Your task to perform on an android device: turn smart compose on in the gmail app Image 0: 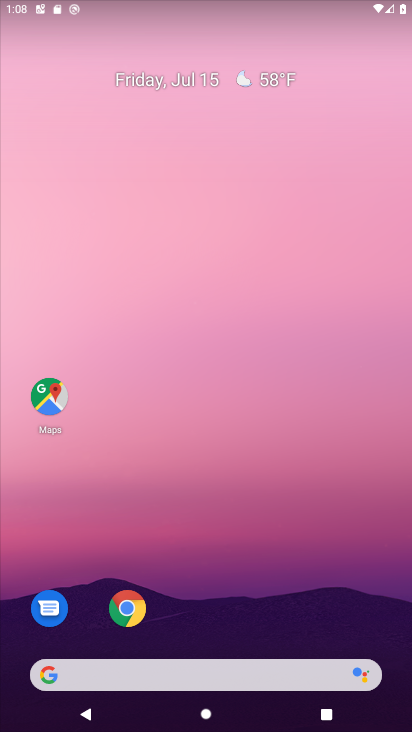
Step 0: drag from (255, 540) to (318, 184)
Your task to perform on an android device: turn smart compose on in the gmail app Image 1: 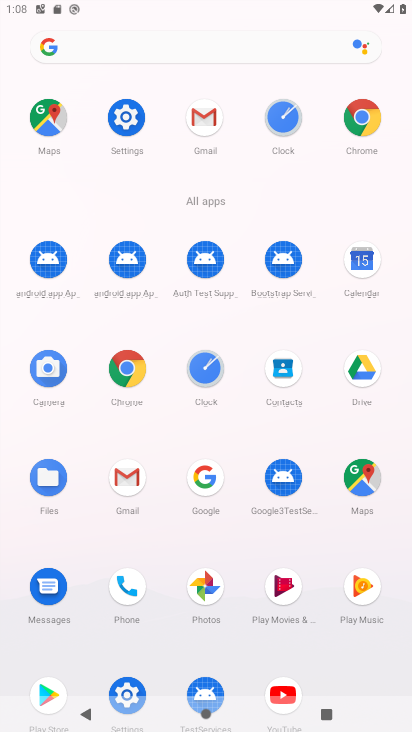
Step 1: click (110, 471)
Your task to perform on an android device: turn smart compose on in the gmail app Image 2: 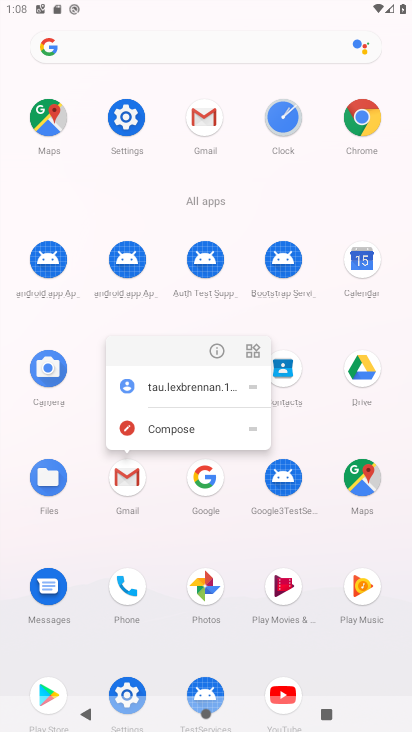
Step 2: click (128, 475)
Your task to perform on an android device: turn smart compose on in the gmail app Image 3: 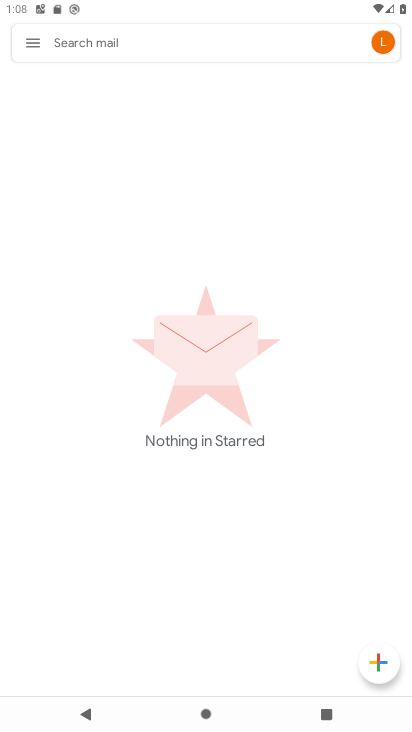
Step 3: click (32, 43)
Your task to perform on an android device: turn smart compose on in the gmail app Image 4: 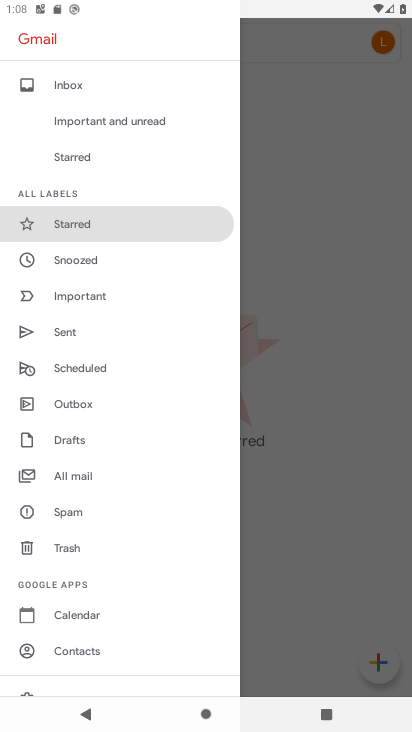
Step 4: drag from (112, 603) to (189, 357)
Your task to perform on an android device: turn smart compose on in the gmail app Image 5: 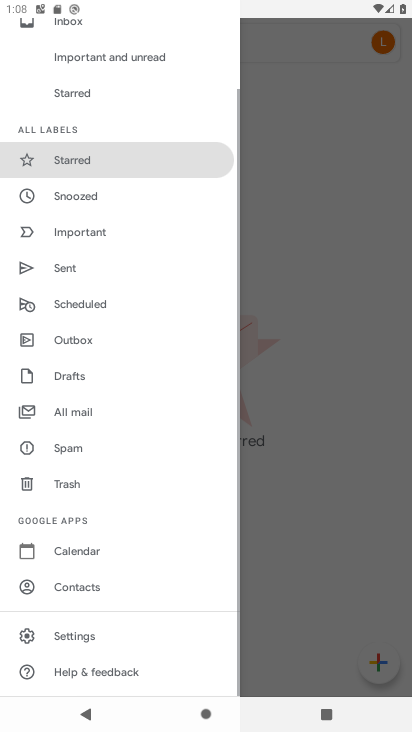
Step 5: click (91, 634)
Your task to perform on an android device: turn smart compose on in the gmail app Image 6: 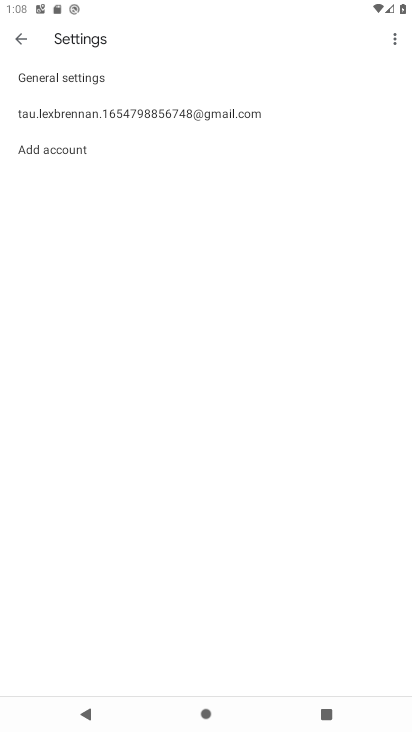
Step 6: click (193, 106)
Your task to perform on an android device: turn smart compose on in the gmail app Image 7: 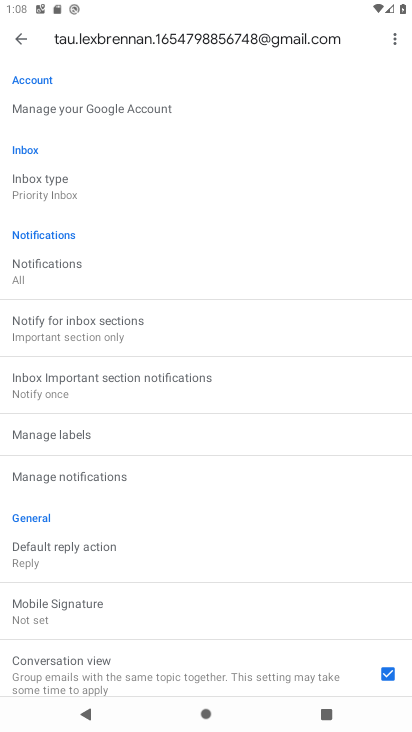
Step 7: task complete